Your task to perform on an android device: Do I have any events this weekend? Image 0: 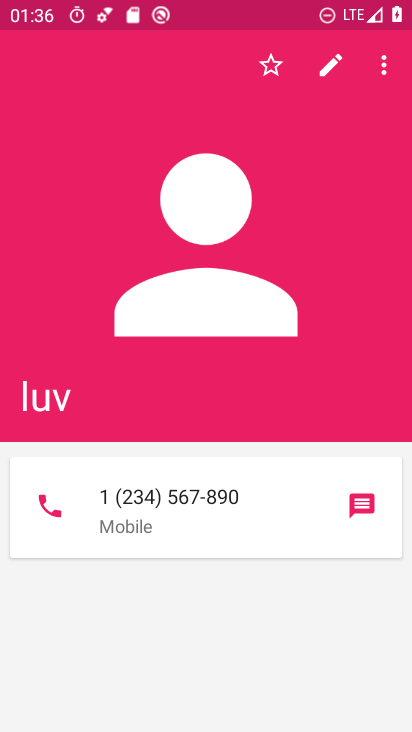
Step 0: press home button
Your task to perform on an android device: Do I have any events this weekend? Image 1: 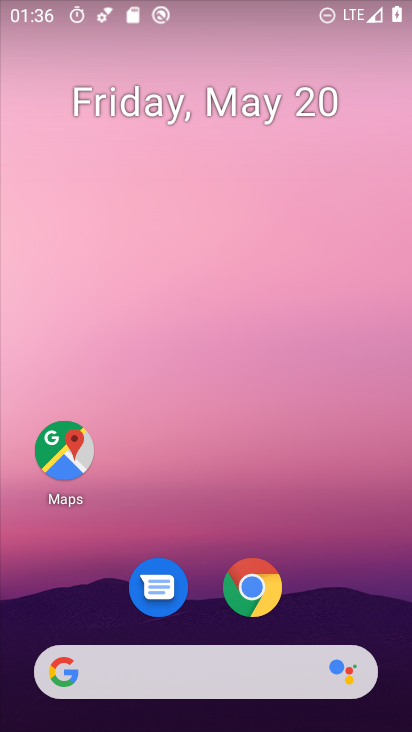
Step 1: drag from (351, 613) to (346, 266)
Your task to perform on an android device: Do I have any events this weekend? Image 2: 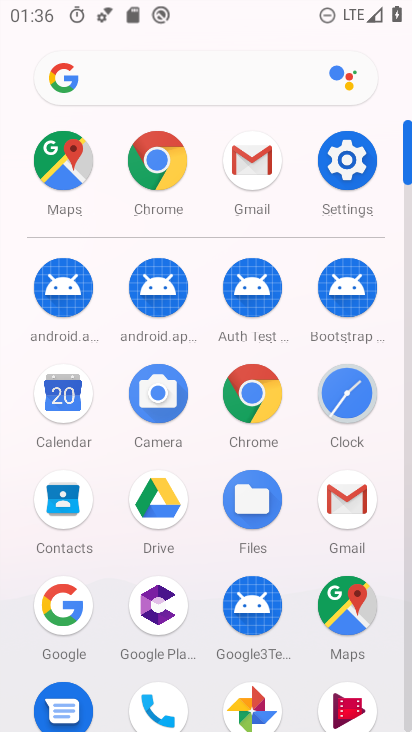
Step 2: click (68, 403)
Your task to perform on an android device: Do I have any events this weekend? Image 3: 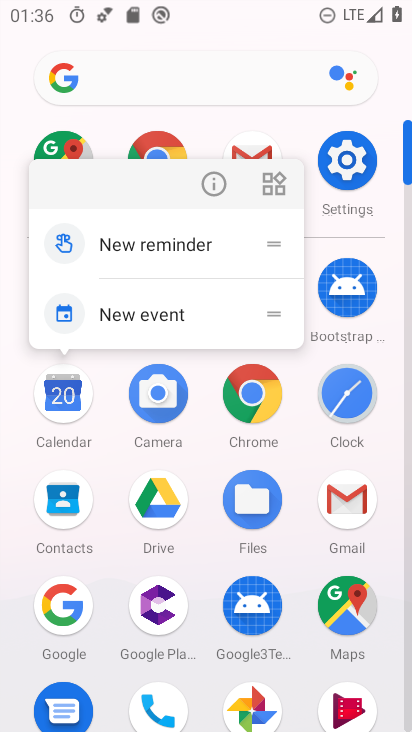
Step 3: click (82, 422)
Your task to perform on an android device: Do I have any events this weekend? Image 4: 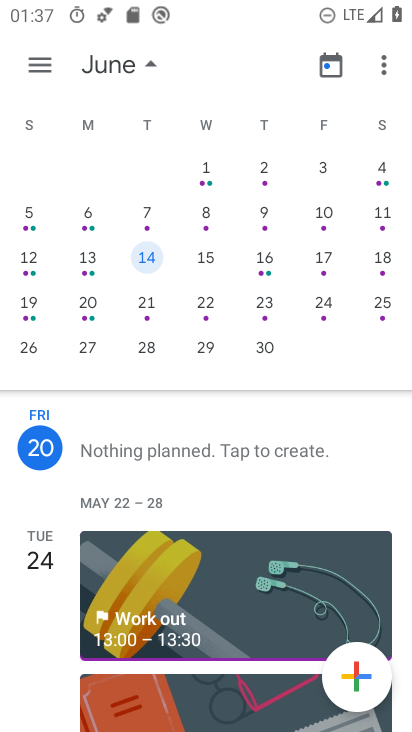
Step 4: task complete